Your task to perform on an android device: Open calendar and show me the third week of next month Image 0: 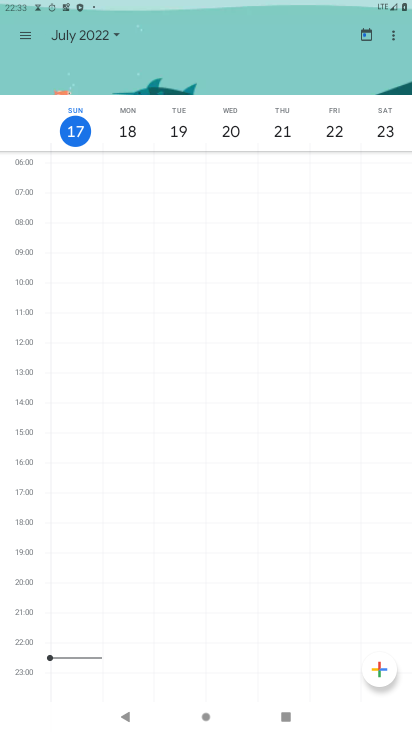
Step 0: press home button
Your task to perform on an android device: Open calendar and show me the third week of next month Image 1: 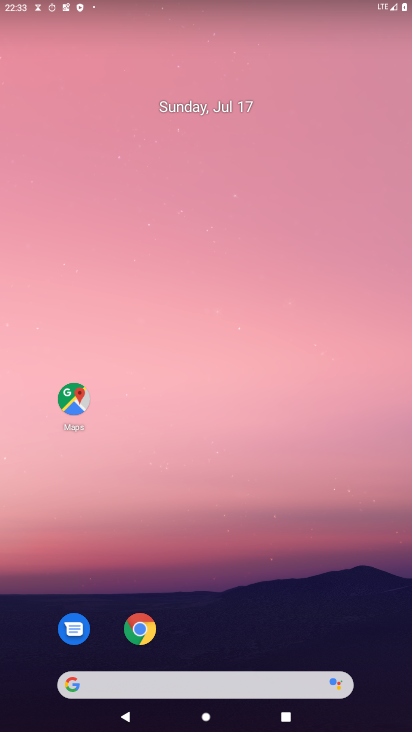
Step 1: drag from (216, 680) to (210, 64)
Your task to perform on an android device: Open calendar and show me the third week of next month Image 2: 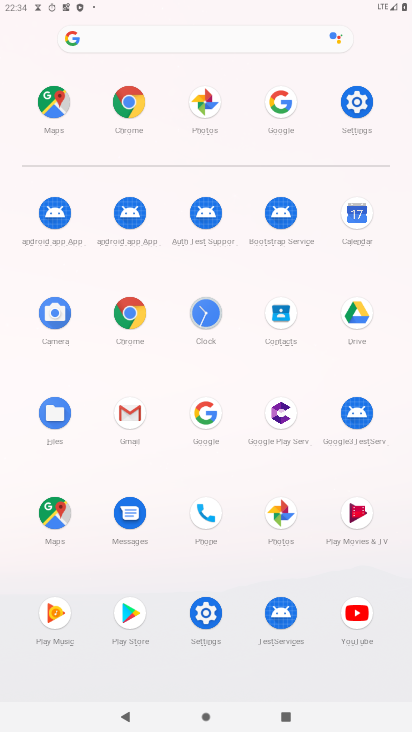
Step 2: click (356, 217)
Your task to perform on an android device: Open calendar and show me the third week of next month Image 3: 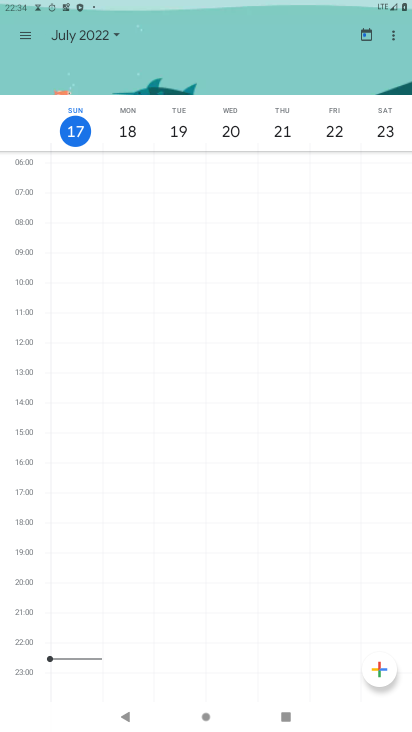
Step 3: click (114, 32)
Your task to perform on an android device: Open calendar and show me the third week of next month Image 4: 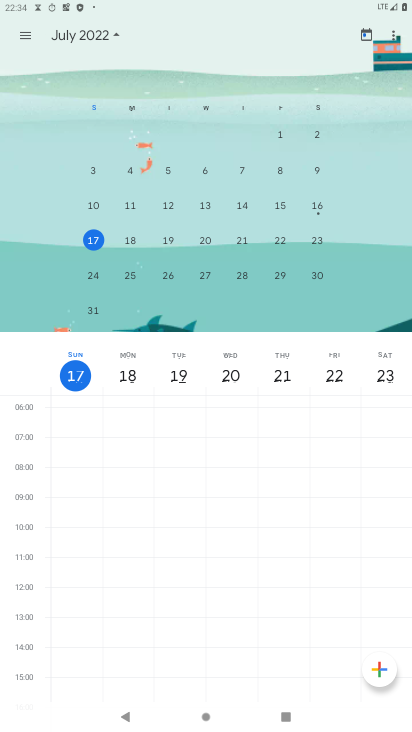
Step 4: drag from (314, 252) to (38, 248)
Your task to perform on an android device: Open calendar and show me the third week of next month Image 5: 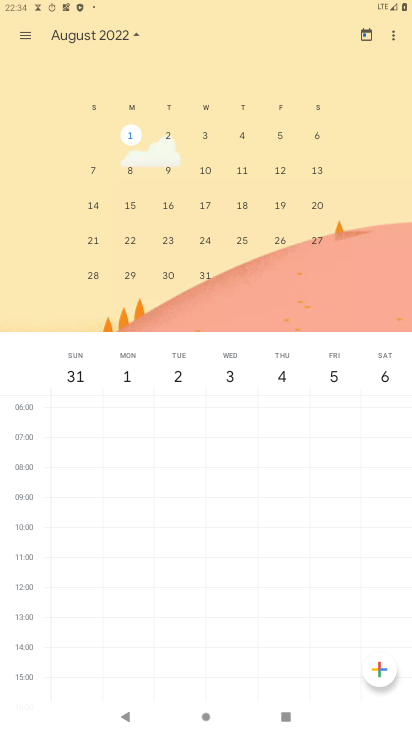
Step 5: click (131, 168)
Your task to perform on an android device: Open calendar and show me the third week of next month Image 6: 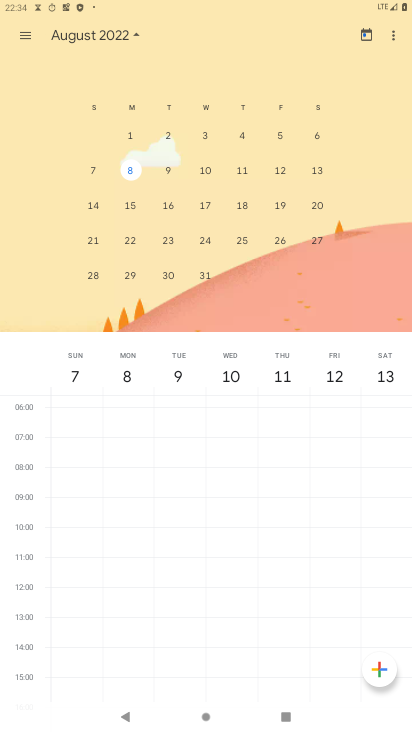
Step 6: click (130, 169)
Your task to perform on an android device: Open calendar and show me the third week of next month Image 7: 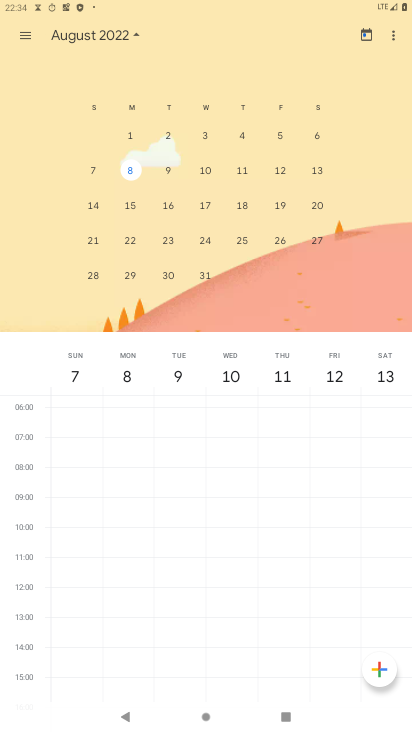
Step 7: click (23, 36)
Your task to perform on an android device: Open calendar and show me the third week of next month Image 8: 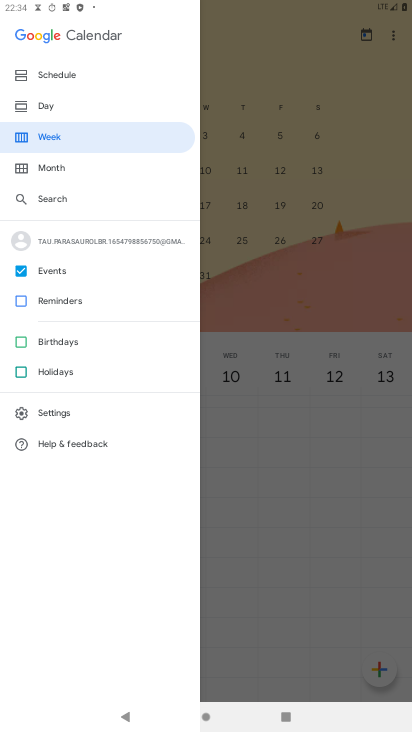
Step 8: click (49, 133)
Your task to perform on an android device: Open calendar and show me the third week of next month Image 9: 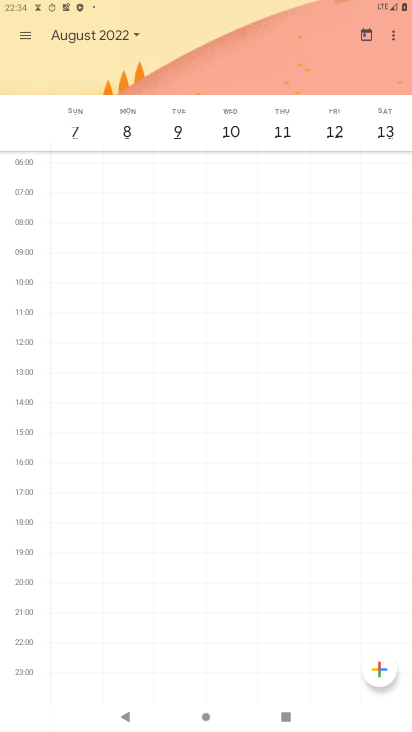
Step 9: task complete